Your task to perform on an android device: turn pop-ups on in chrome Image 0: 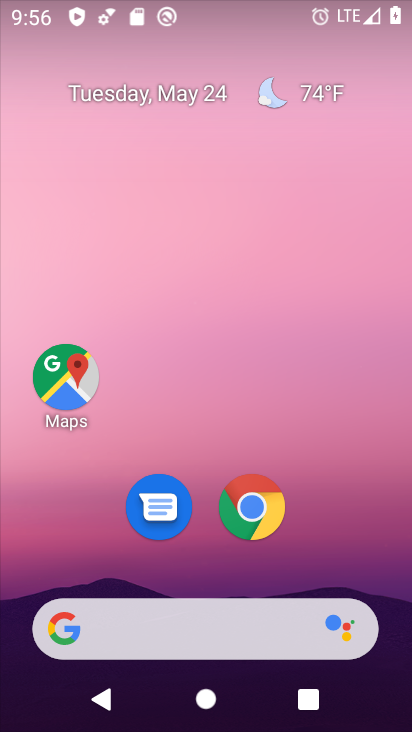
Step 0: click (248, 508)
Your task to perform on an android device: turn pop-ups on in chrome Image 1: 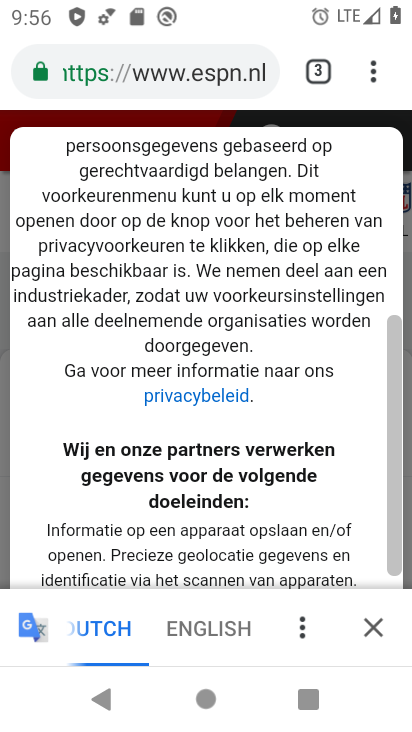
Step 1: click (368, 75)
Your task to perform on an android device: turn pop-ups on in chrome Image 2: 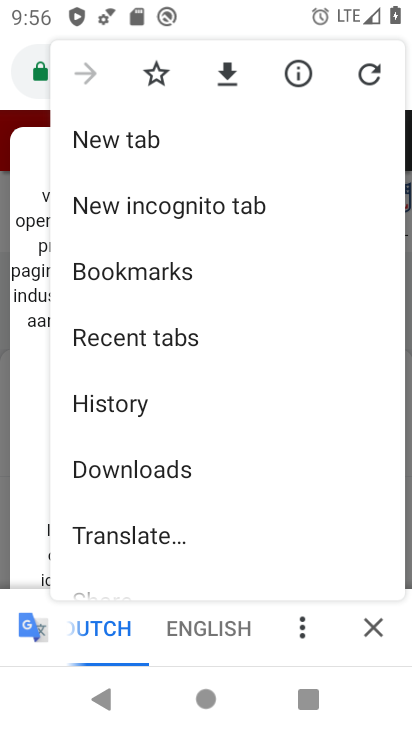
Step 2: drag from (112, 556) to (119, 263)
Your task to perform on an android device: turn pop-ups on in chrome Image 3: 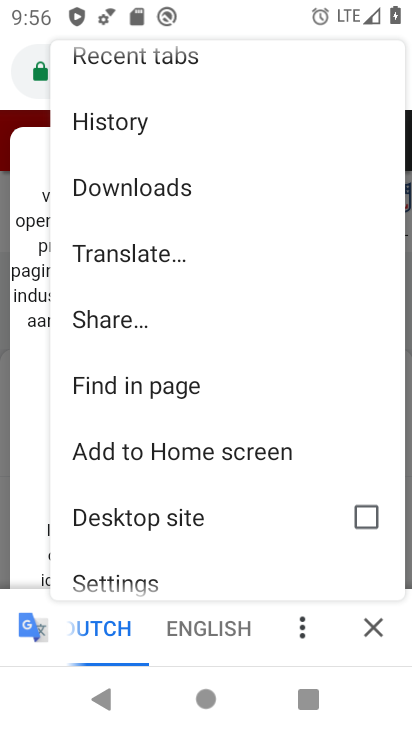
Step 3: click (120, 580)
Your task to perform on an android device: turn pop-ups on in chrome Image 4: 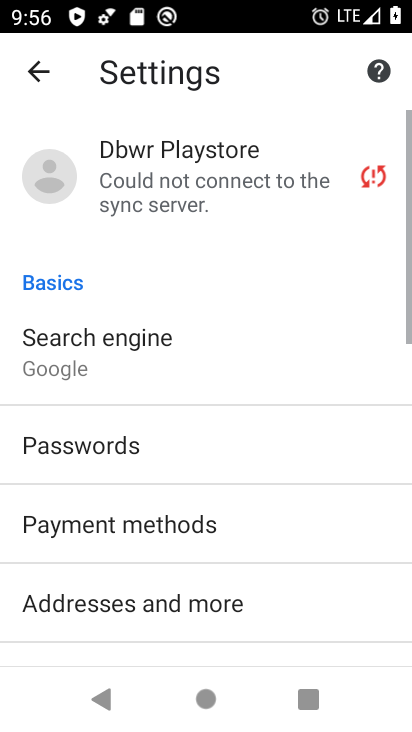
Step 4: drag from (180, 602) to (193, 259)
Your task to perform on an android device: turn pop-ups on in chrome Image 5: 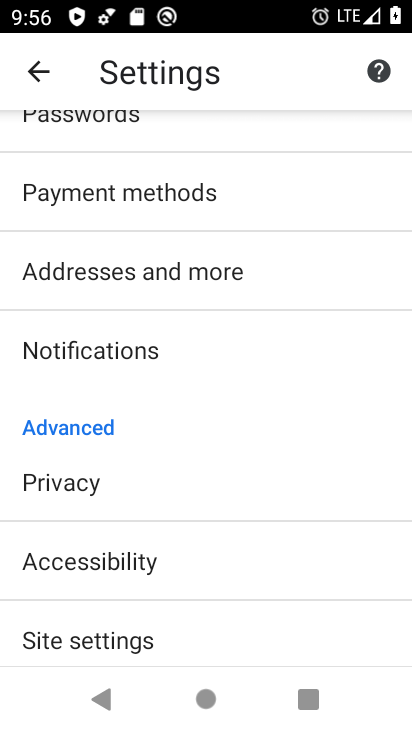
Step 5: drag from (115, 623) to (128, 521)
Your task to perform on an android device: turn pop-ups on in chrome Image 6: 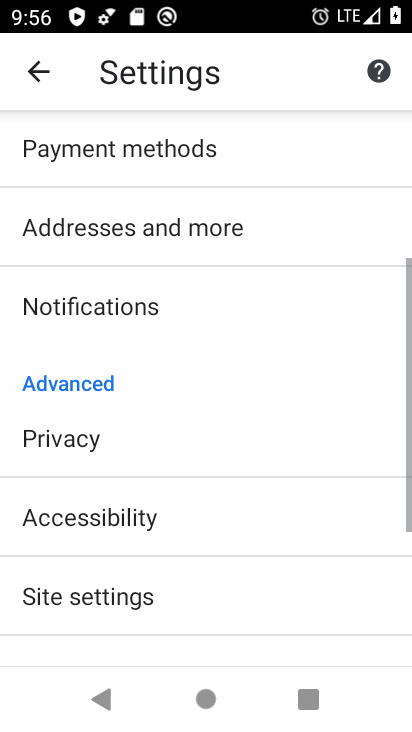
Step 6: drag from (128, 441) to (128, 287)
Your task to perform on an android device: turn pop-ups on in chrome Image 7: 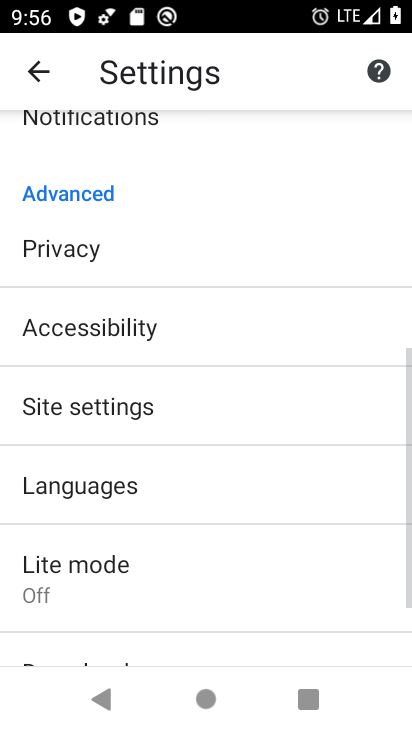
Step 7: click (105, 409)
Your task to perform on an android device: turn pop-ups on in chrome Image 8: 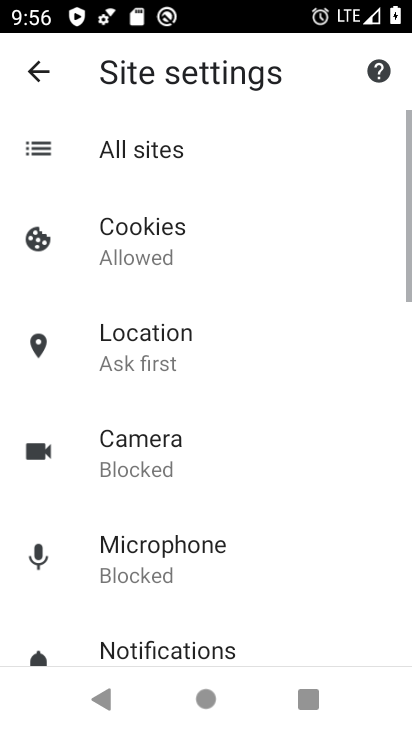
Step 8: drag from (146, 618) to (182, 262)
Your task to perform on an android device: turn pop-ups on in chrome Image 9: 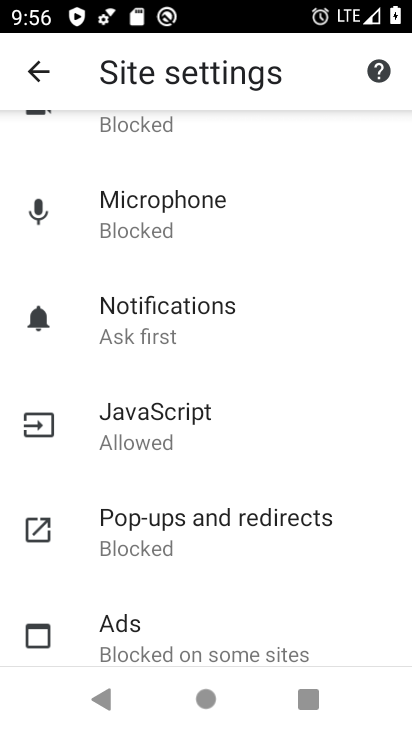
Step 9: click (176, 535)
Your task to perform on an android device: turn pop-ups on in chrome Image 10: 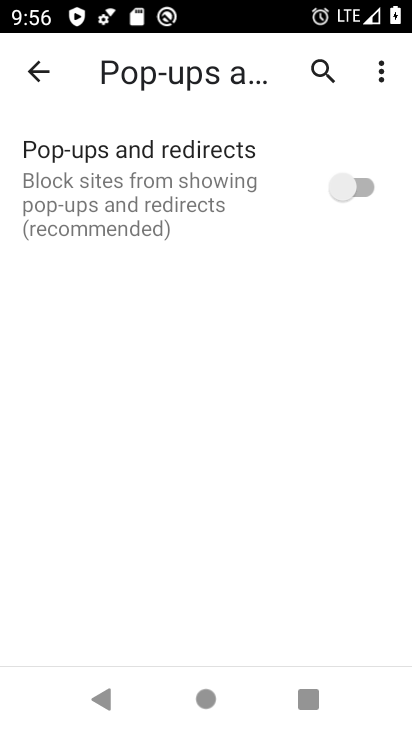
Step 10: click (366, 180)
Your task to perform on an android device: turn pop-ups on in chrome Image 11: 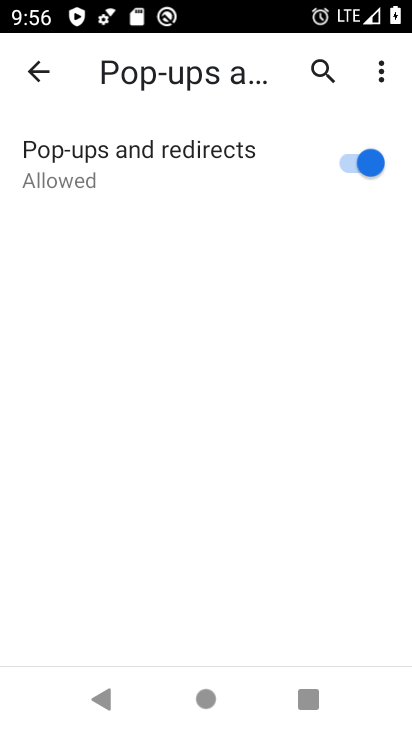
Step 11: task complete